Your task to perform on an android device: Search for the best rated tool bag on Lowe's. Image 0: 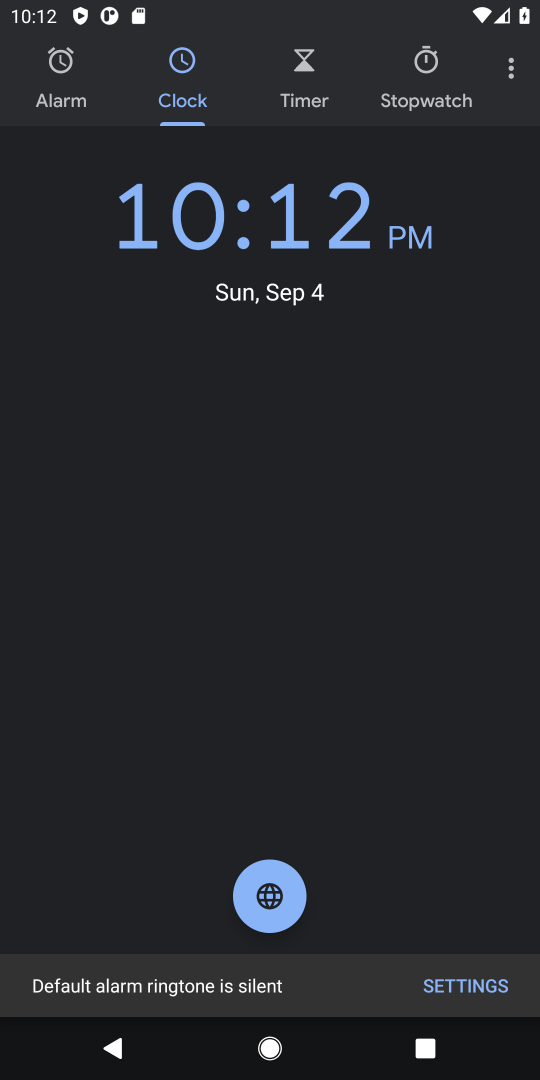
Step 0: press home button
Your task to perform on an android device: Search for the best rated tool bag on Lowe's. Image 1: 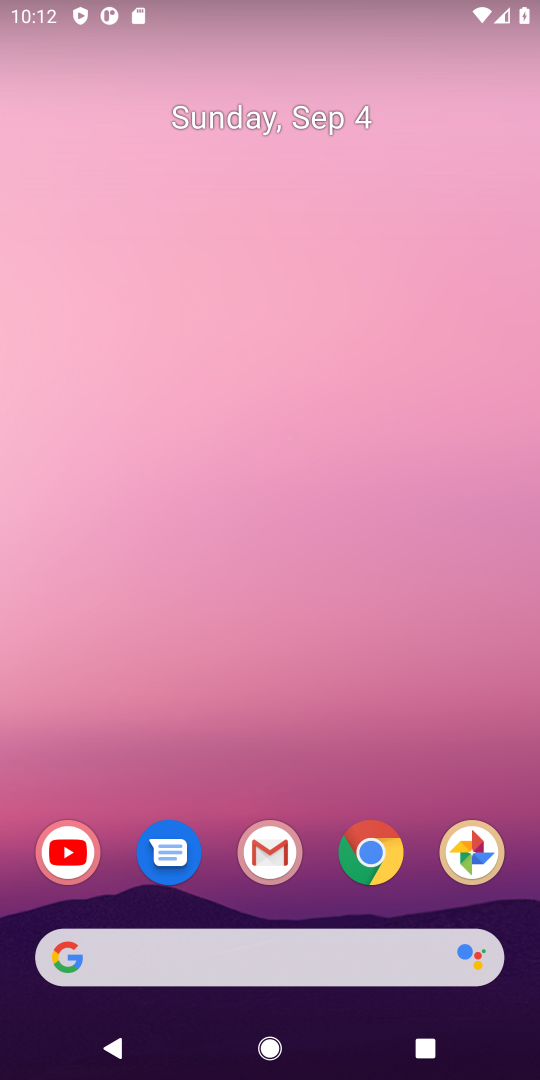
Step 1: drag from (381, 527) to (258, 22)
Your task to perform on an android device: Search for the best rated tool bag on Lowe's. Image 2: 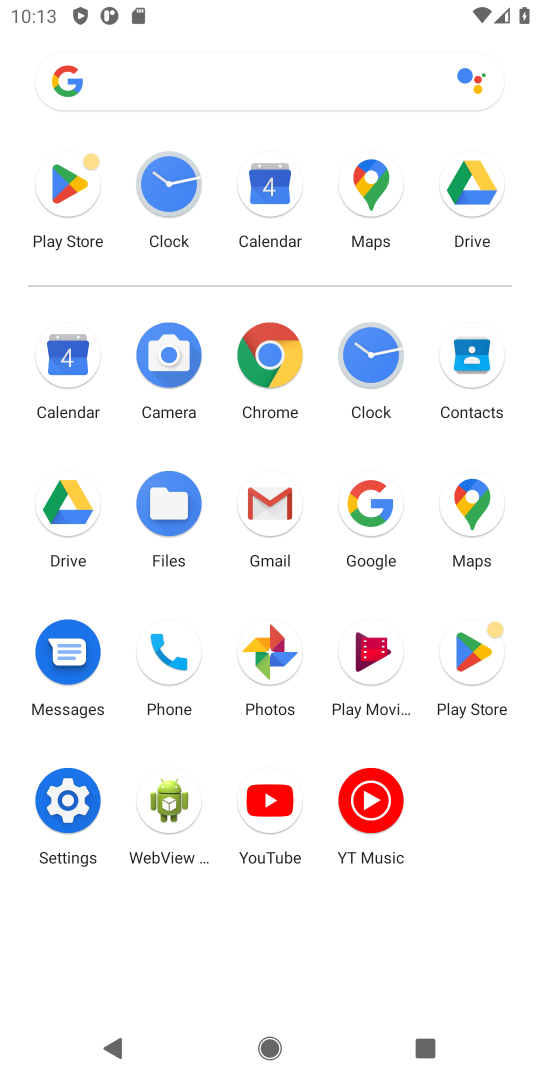
Step 2: click (394, 513)
Your task to perform on an android device: Search for the best rated tool bag on Lowe's. Image 3: 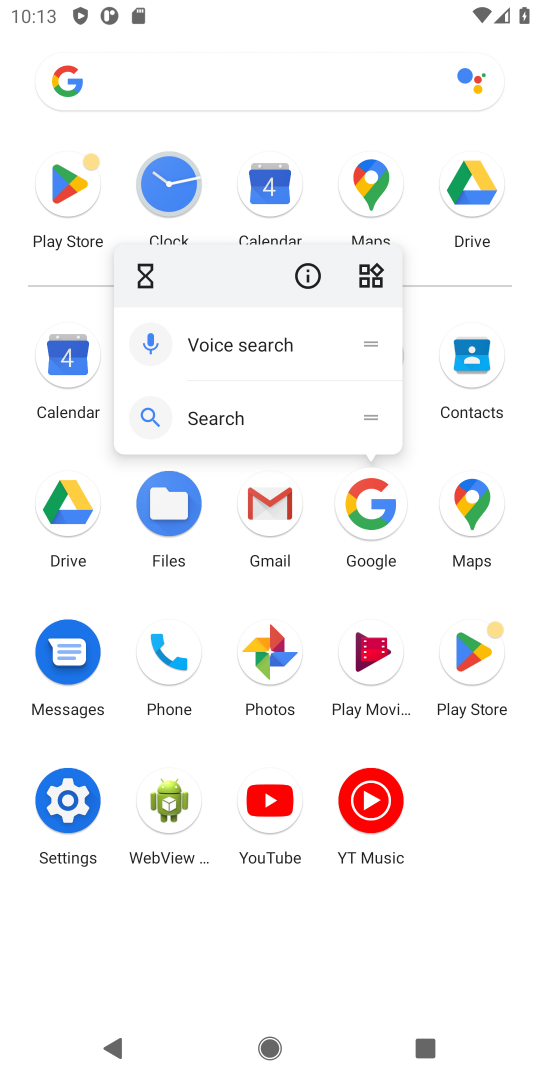
Step 3: click (394, 513)
Your task to perform on an android device: Search for the best rated tool bag on Lowe's. Image 4: 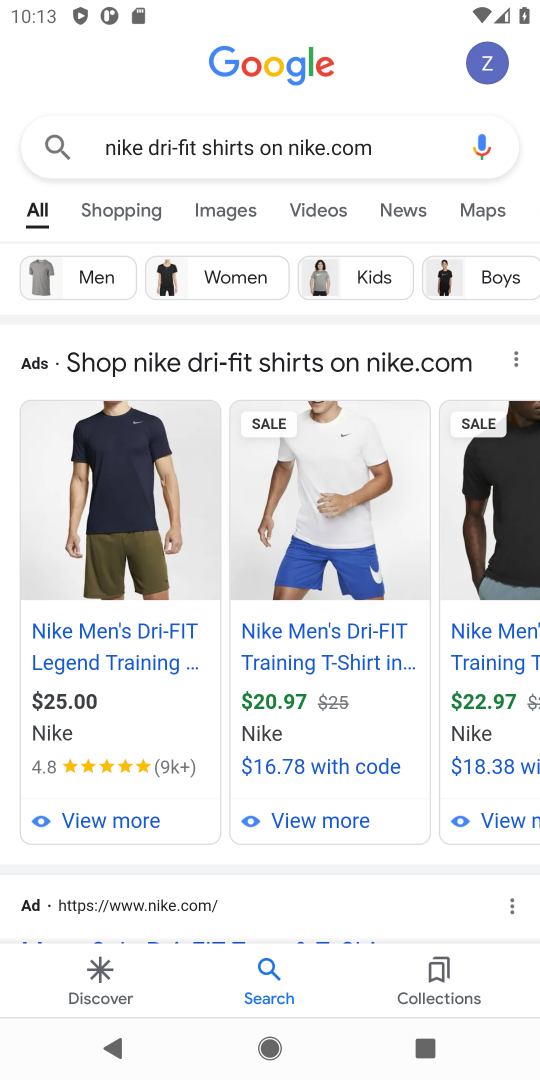
Step 4: press back button
Your task to perform on an android device: Search for the best rated tool bag on Lowe's. Image 5: 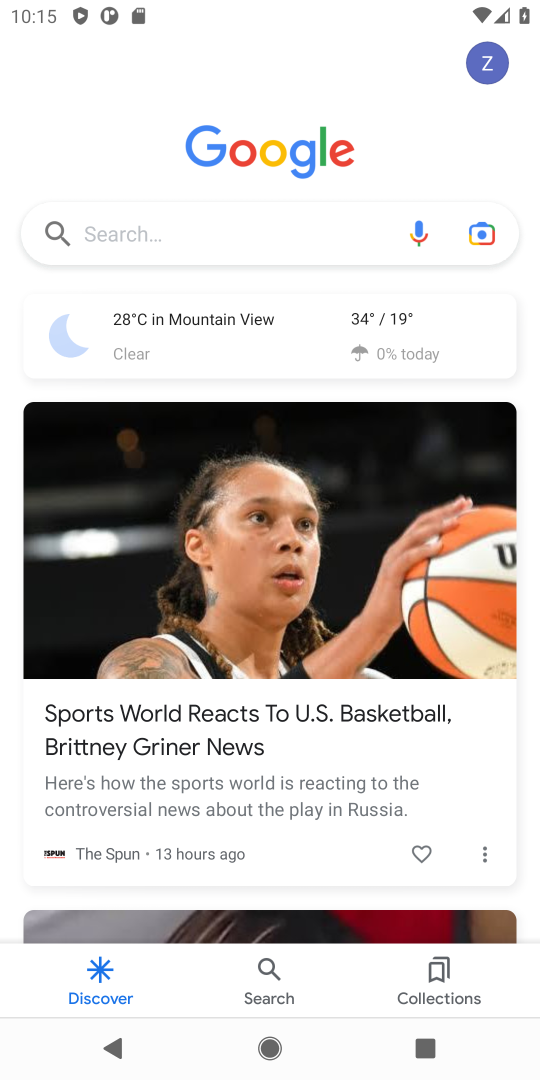
Step 5: click (139, 222)
Your task to perform on an android device: Search for the best rated tool bag on Lowe's. Image 6: 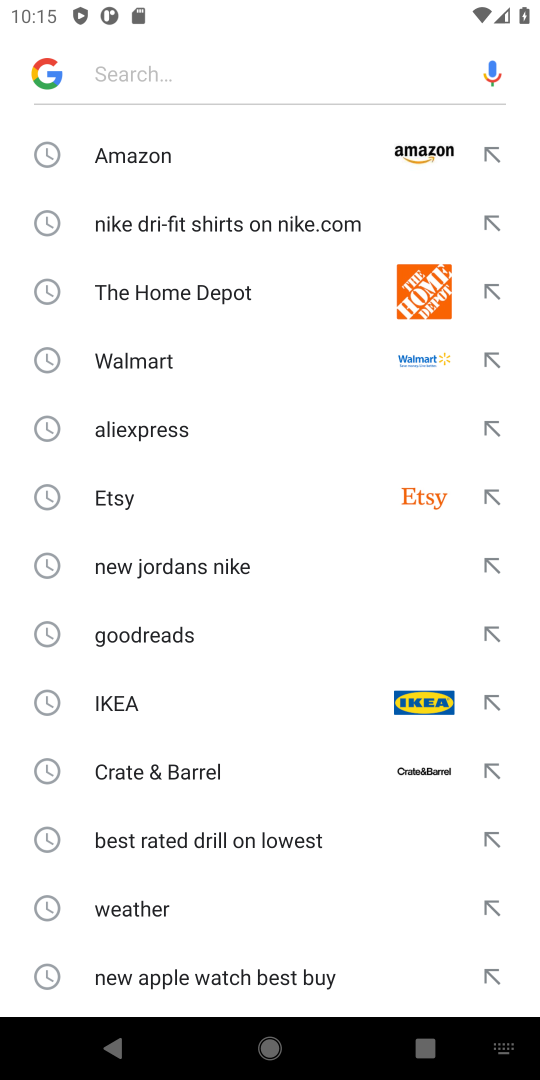
Step 6: click (175, 70)
Your task to perform on an android device: Search for the best rated tool bag on Lowe's. Image 7: 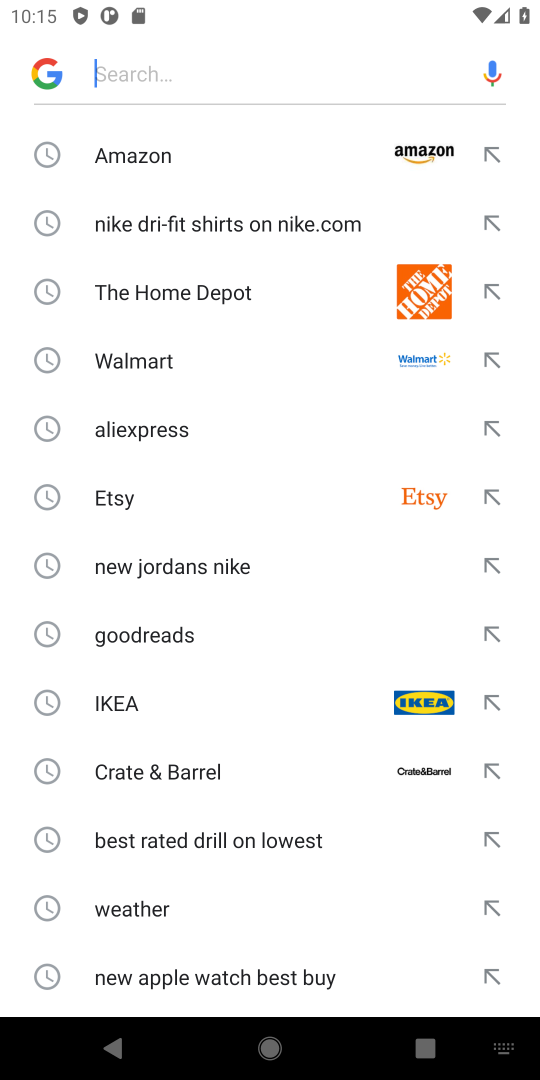
Step 7: type "best rated tool bag on Lowe's"
Your task to perform on an android device: Search for the best rated tool bag on Lowe's. Image 8: 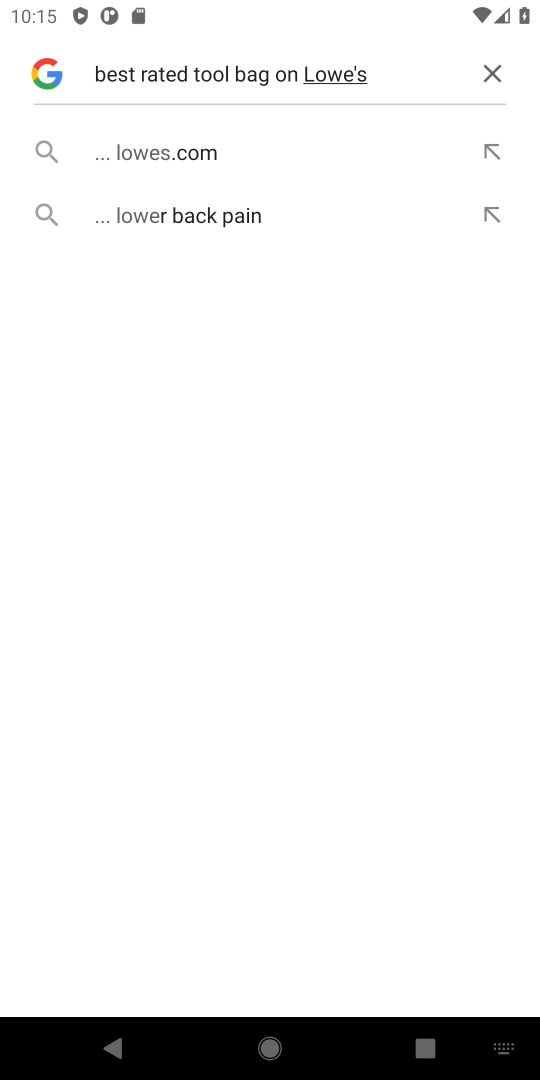
Step 8: click (209, 165)
Your task to perform on an android device: Search for the best rated tool bag on Lowe's. Image 9: 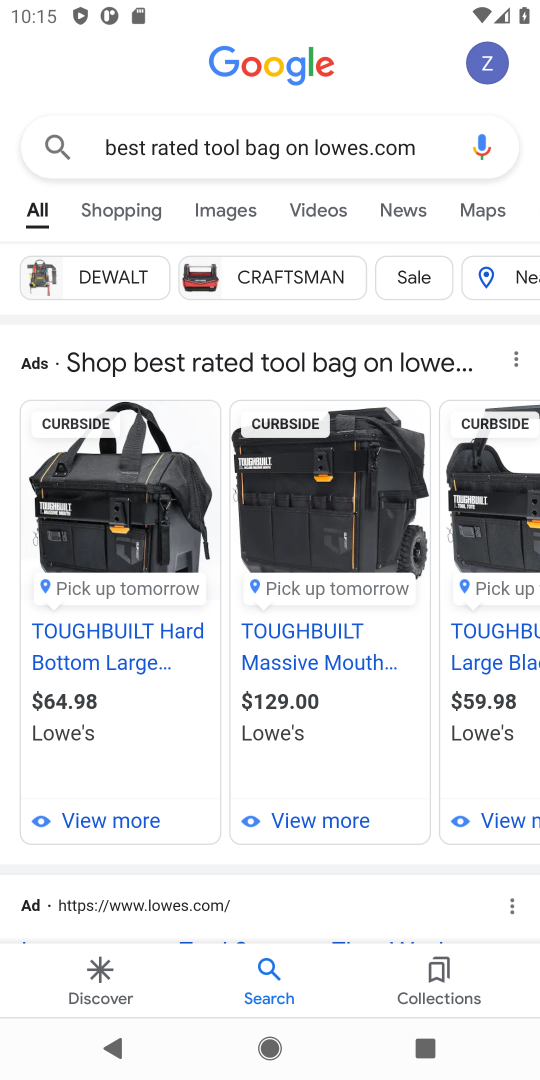
Step 9: task complete